Your task to perform on an android device: delete a single message in the gmail app Image 0: 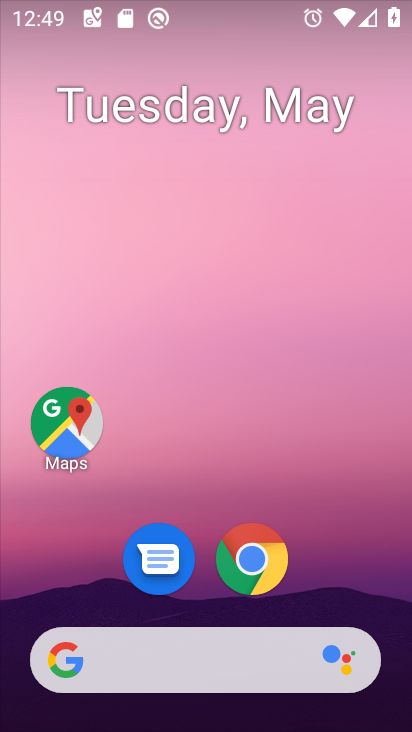
Step 0: drag from (361, 596) to (284, 147)
Your task to perform on an android device: delete a single message in the gmail app Image 1: 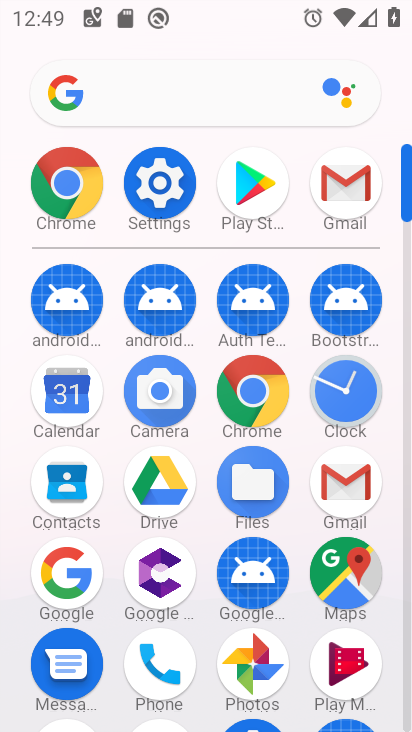
Step 1: click (355, 198)
Your task to perform on an android device: delete a single message in the gmail app Image 2: 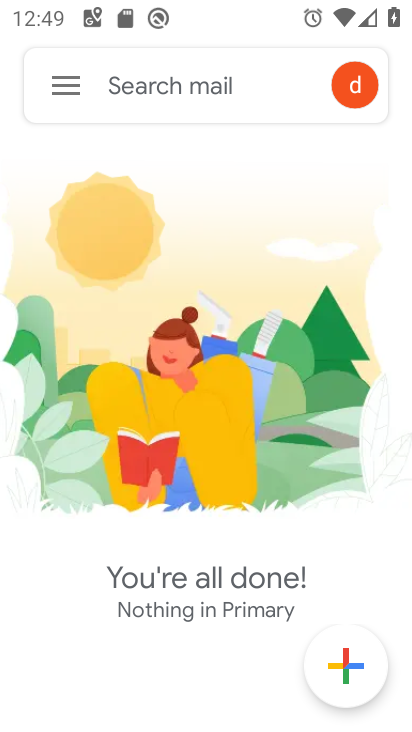
Step 2: click (74, 101)
Your task to perform on an android device: delete a single message in the gmail app Image 3: 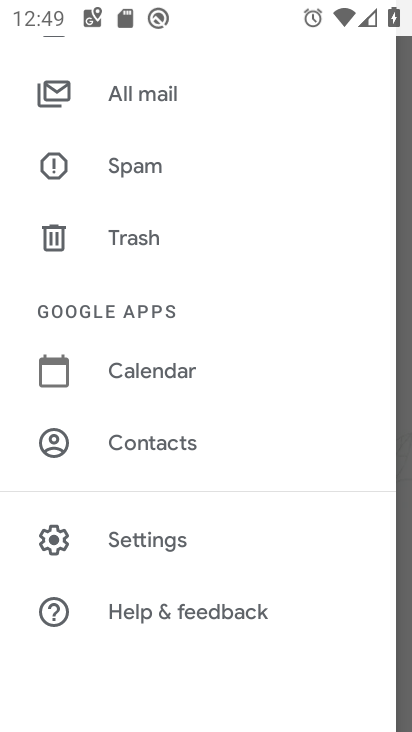
Step 3: drag from (189, 139) to (190, 412)
Your task to perform on an android device: delete a single message in the gmail app Image 4: 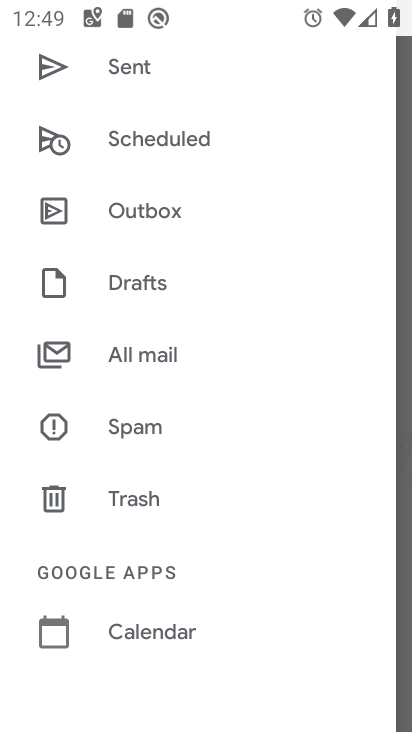
Step 4: click (189, 365)
Your task to perform on an android device: delete a single message in the gmail app Image 5: 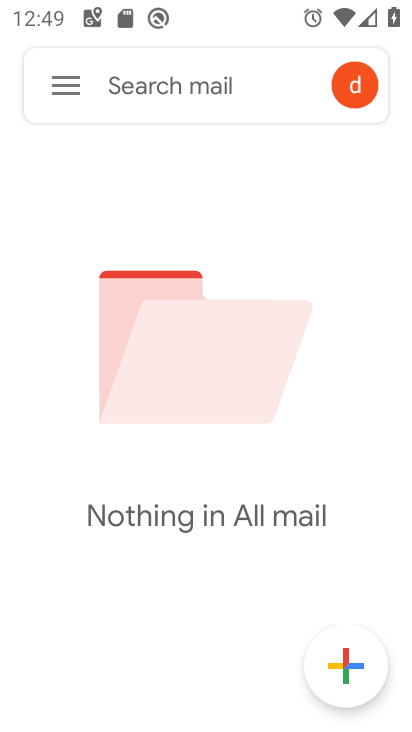
Step 5: task complete